Your task to perform on an android device: Go to Maps Image 0: 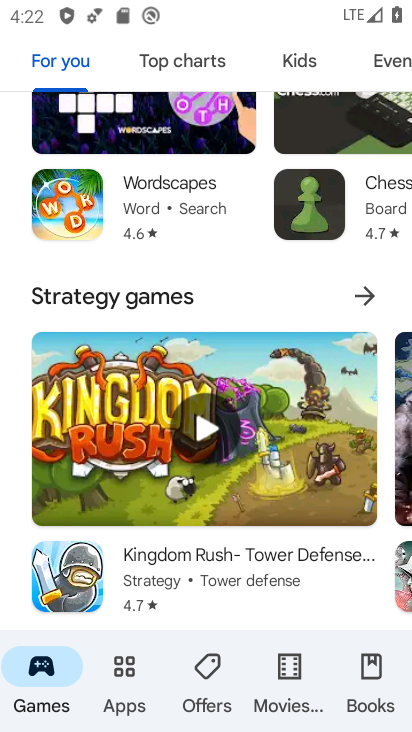
Step 0: press home button
Your task to perform on an android device: Go to Maps Image 1: 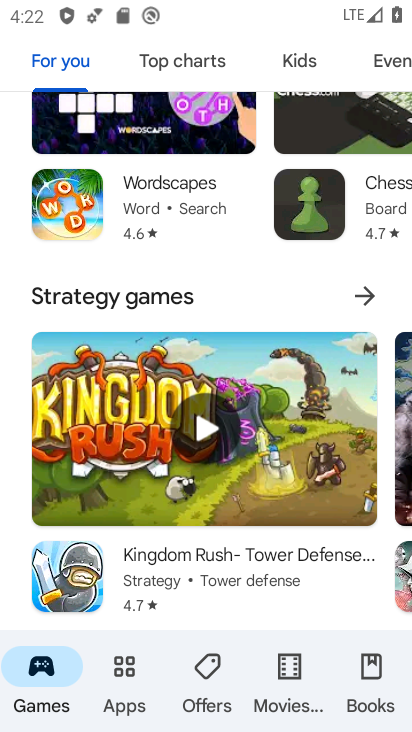
Step 1: press home button
Your task to perform on an android device: Go to Maps Image 2: 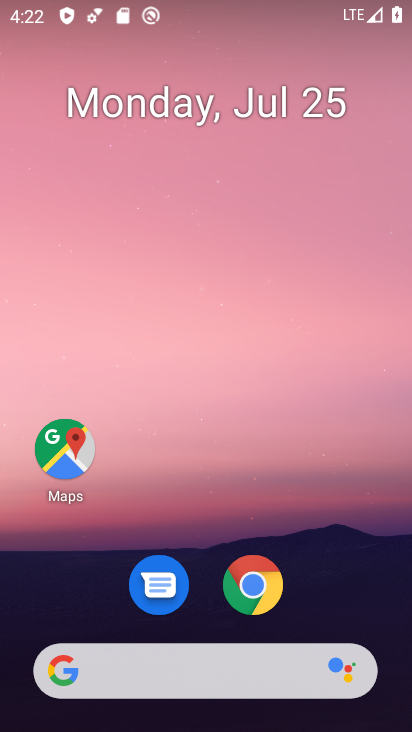
Step 2: click (61, 446)
Your task to perform on an android device: Go to Maps Image 3: 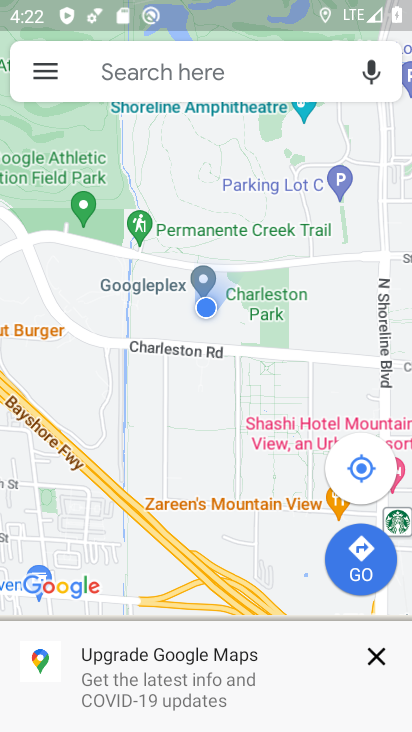
Step 3: task complete